Your task to perform on an android device: Open the map Image 0: 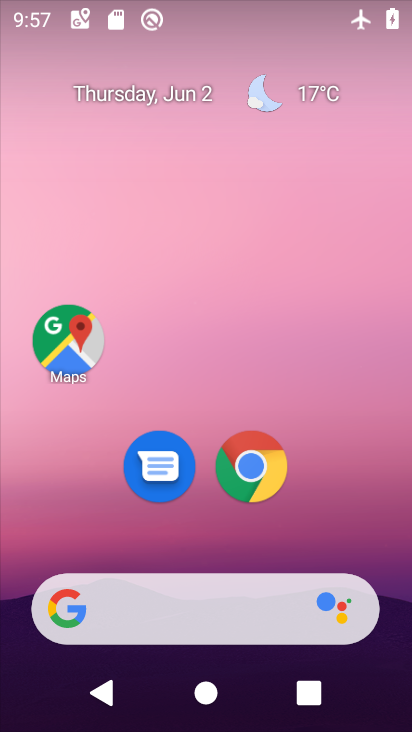
Step 0: click (46, 335)
Your task to perform on an android device: Open the map Image 1: 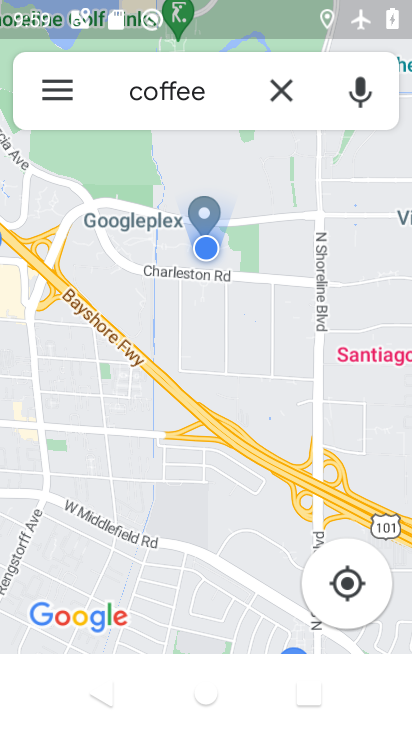
Step 1: task complete